Your task to perform on an android device: see tabs open on other devices in the chrome app Image 0: 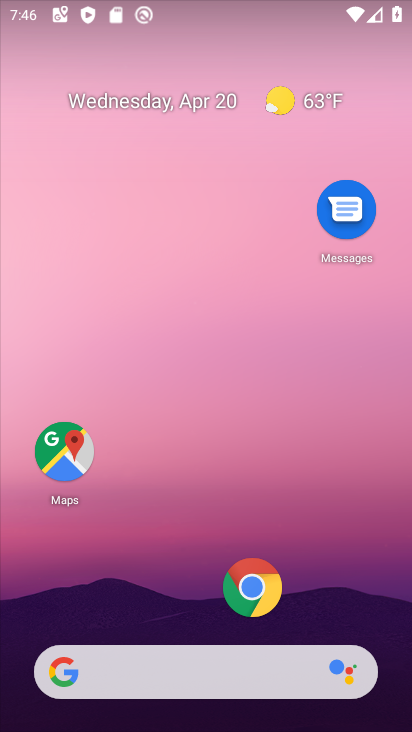
Step 0: drag from (197, 672) to (367, 164)
Your task to perform on an android device: see tabs open on other devices in the chrome app Image 1: 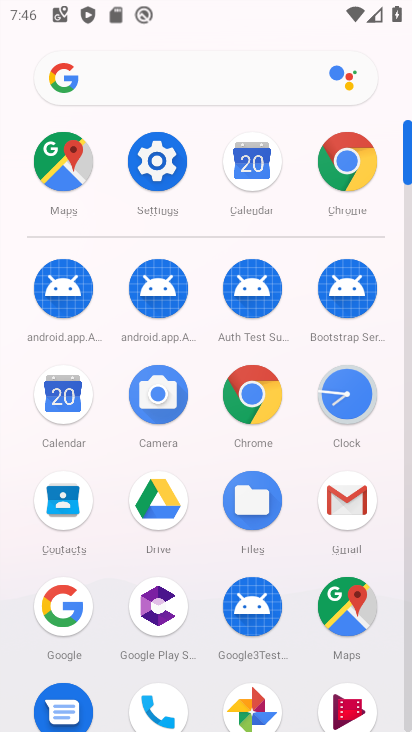
Step 1: click (349, 175)
Your task to perform on an android device: see tabs open on other devices in the chrome app Image 2: 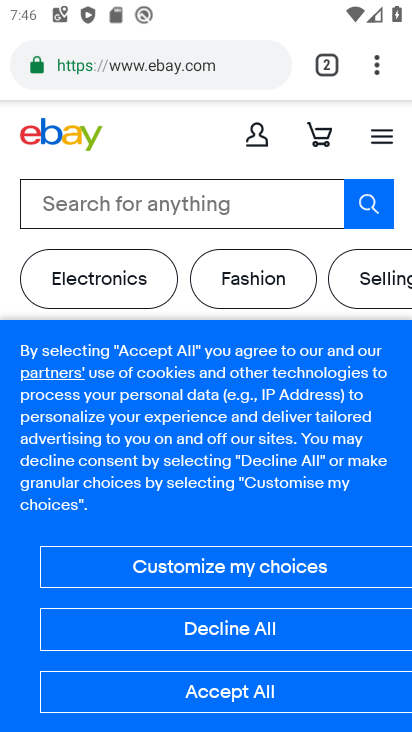
Step 2: click (373, 72)
Your task to perform on an android device: see tabs open on other devices in the chrome app Image 3: 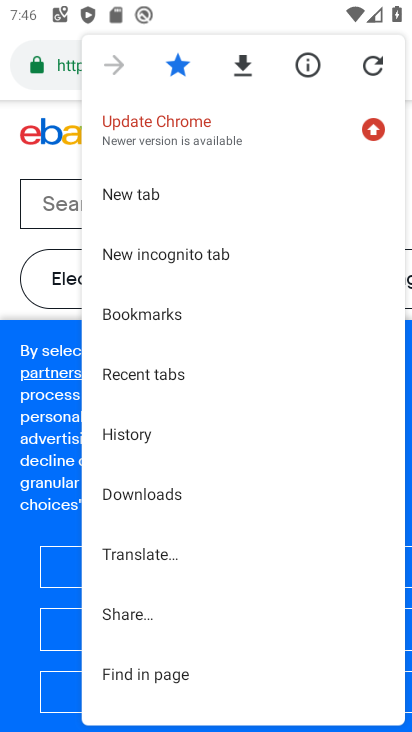
Step 3: click (140, 373)
Your task to perform on an android device: see tabs open on other devices in the chrome app Image 4: 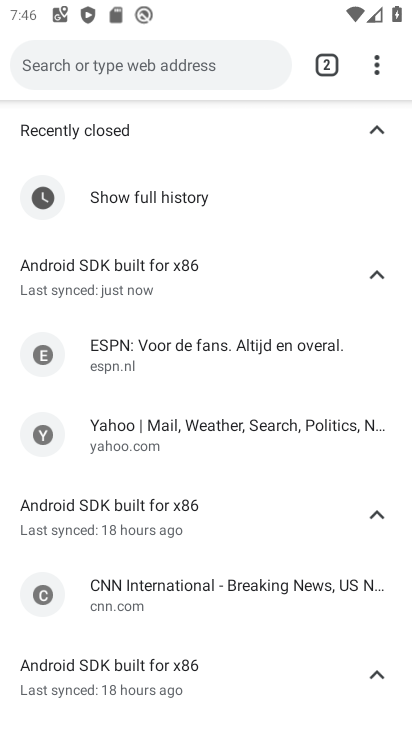
Step 4: task complete